Your task to perform on an android device: open chrome privacy settings Image 0: 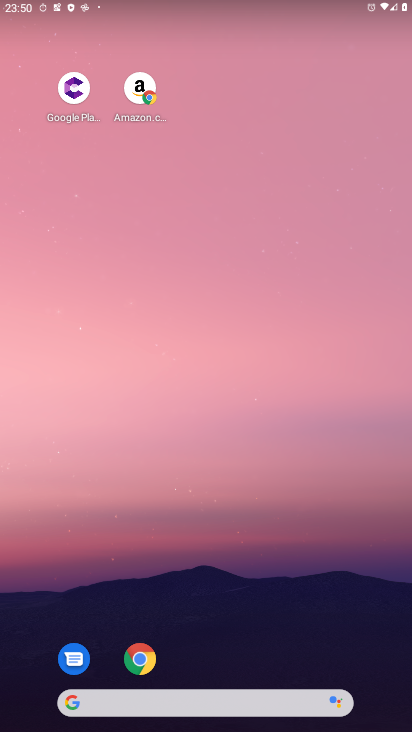
Step 0: click (153, 656)
Your task to perform on an android device: open chrome privacy settings Image 1: 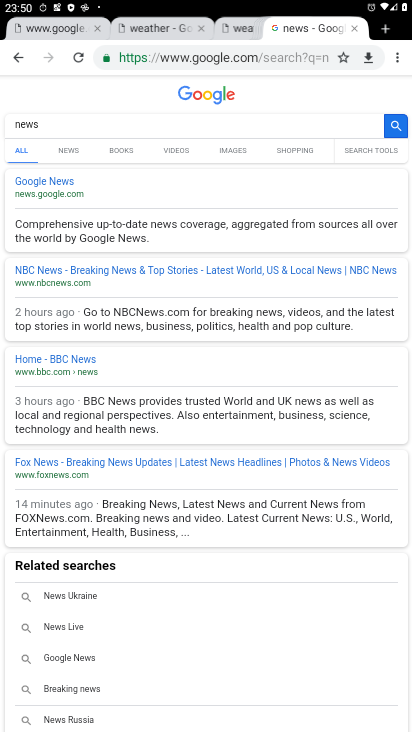
Step 1: click (390, 54)
Your task to perform on an android device: open chrome privacy settings Image 2: 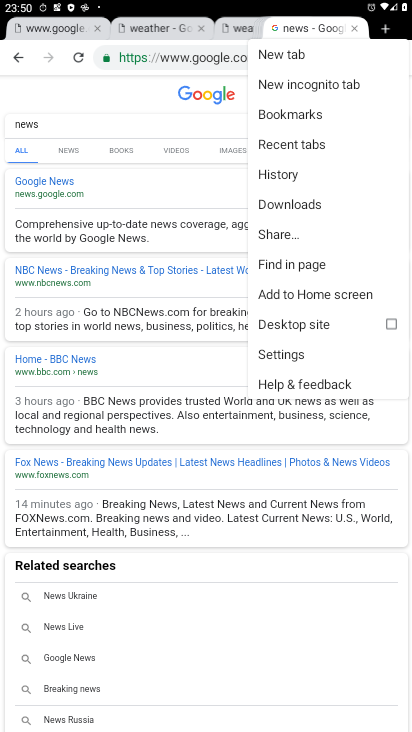
Step 2: click (303, 347)
Your task to perform on an android device: open chrome privacy settings Image 3: 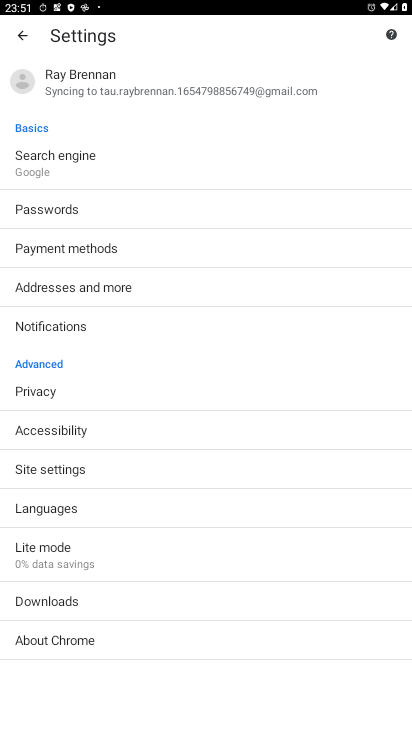
Step 3: click (73, 394)
Your task to perform on an android device: open chrome privacy settings Image 4: 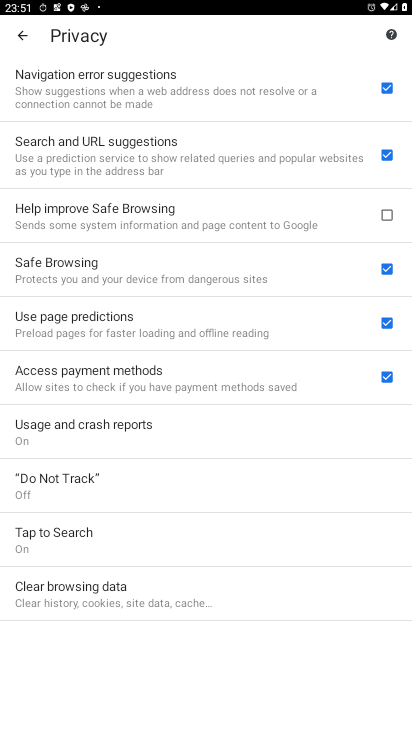
Step 4: task complete